Your task to perform on an android device: star an email in the gmail app Image 0: 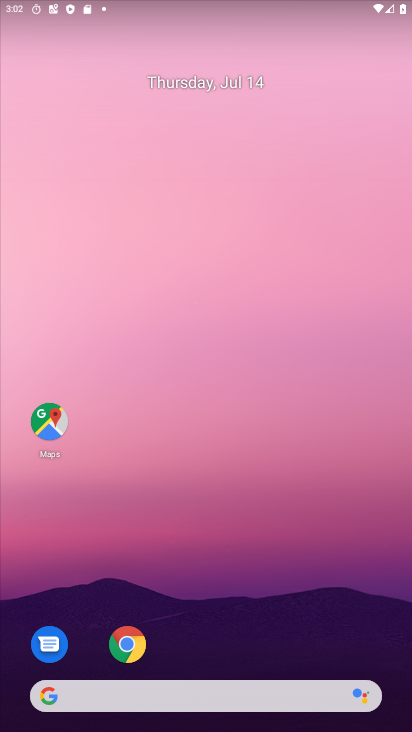
Step 0: drag from (237, 477) to (330, 375)
Your task to perform on an android device: star an email in the gmail app Image 1: 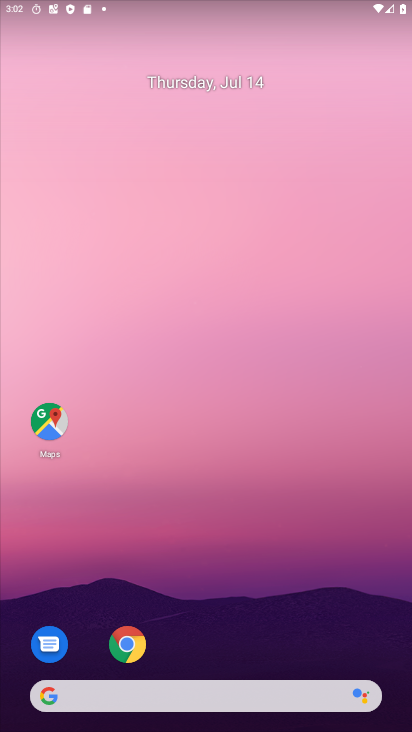
Step 1: drag from (16, 697) to (268, 160)
Your task to perform on an android device: star an email in the gmail app Image 2: 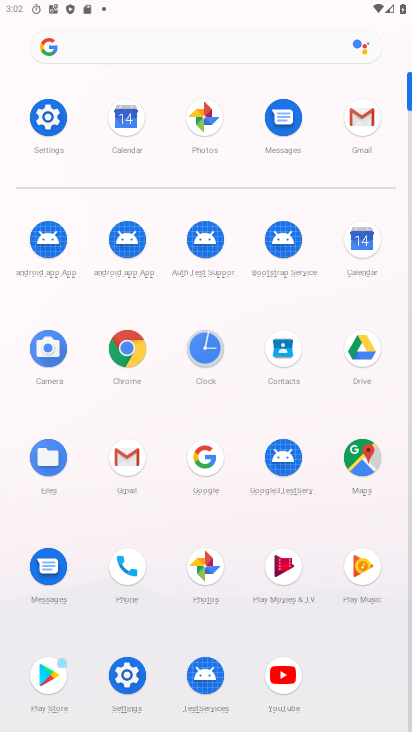
Step 2: click (122, 464)
Your task to perform on an android device: star an email in the gmail app Image 3: 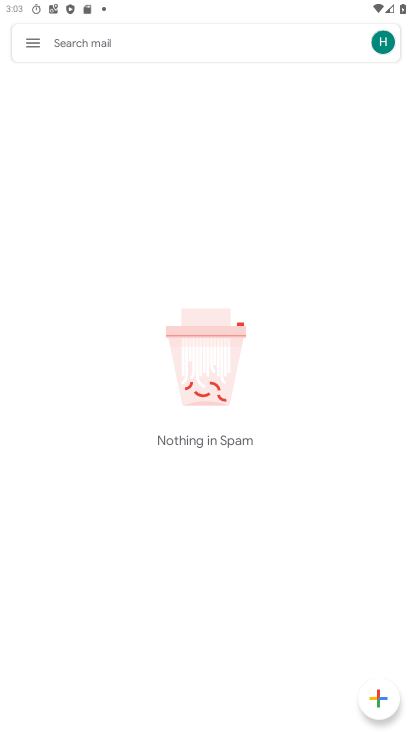
Step 3: click (38, 47)
Your task to perform on an android device: star an email in the gmail app Image 4: 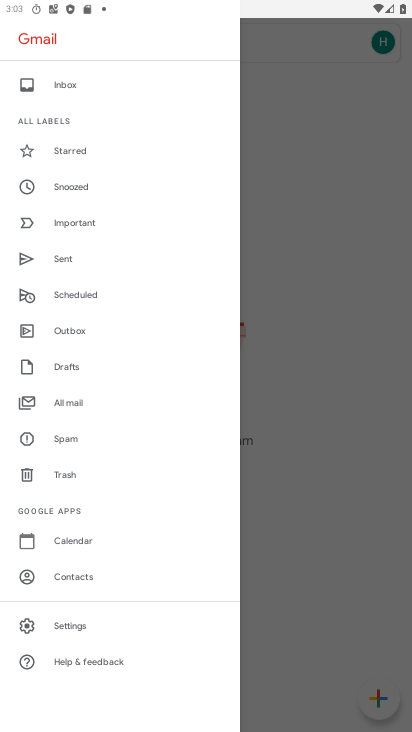
Step 4: click (75, 135)
Your task to perform on an android device: star an email in the gmail app Image 5: 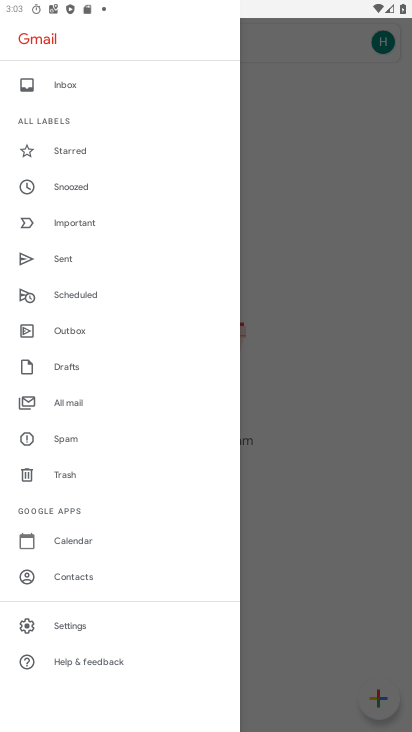
Step 5: click (69, 142)
Your task to perform on an android device: star an email in the gmail app Image 6: 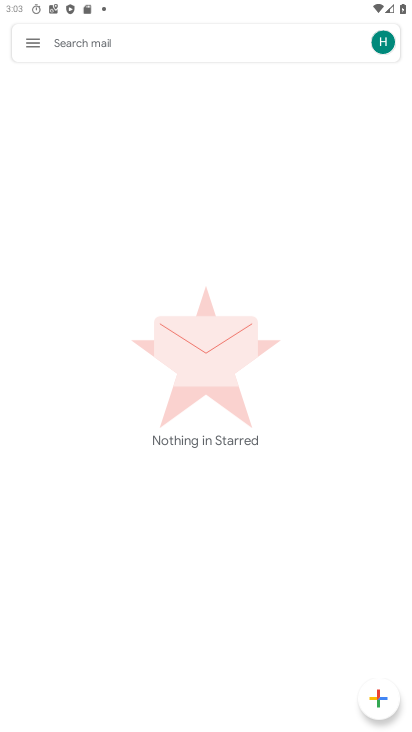
Step 6: task complete